Your task to perform on an android device: change the clock display to analog Image 0: 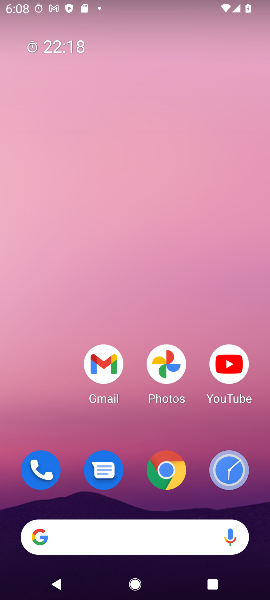
Step 0: drag from (192, 498) to (167, 15)
Your task to perform on an android device: change the clock display to analog Image 1: 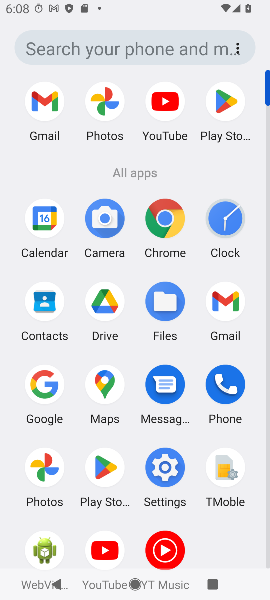
Step 1: click (225, 224)
Your task to perform on an android device: change the clock display to analog Image 2: 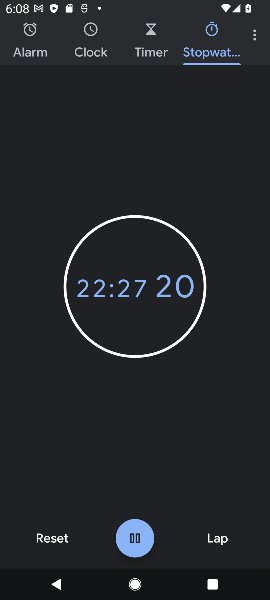
Step 2: click (254, 28)
Your task to perform on an android device: change the clock display to analog Image 3: 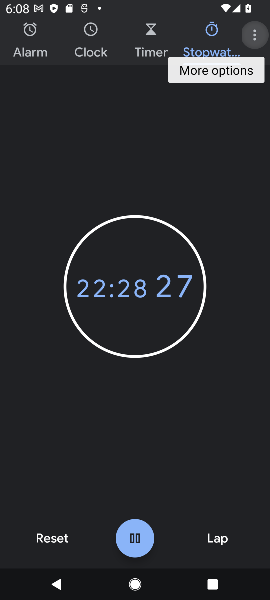
Step 3: click (254, 28)
Your task to perform on an android device: change the clock display to analog Image 4: 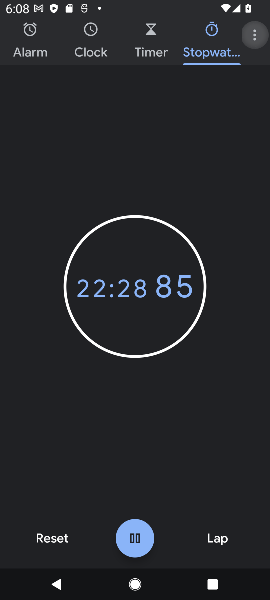
Step 4: click (254, 28)
Your task to perform on an android device: change the clock display to analog Image 5: 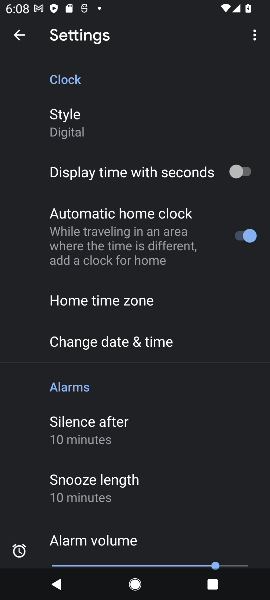
Step 5: click (112, 137)
Your task to perform on an android device: change the clock display to analog Image 6: 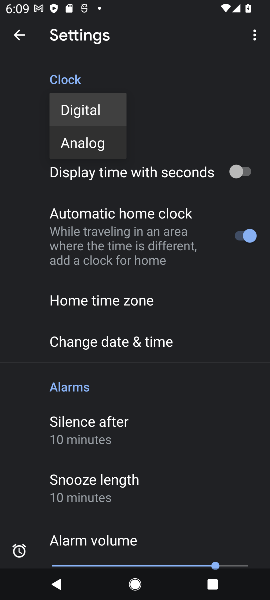
Step 6: click (97, 142)
Your task to perform on an android device: change the clock display to analog Image 7: 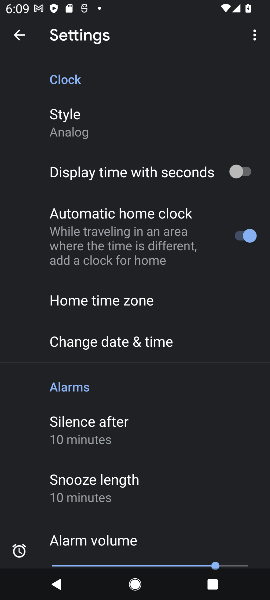
Step 7: task complete